Your task to perform on an android device: turn off wifi Image 0: 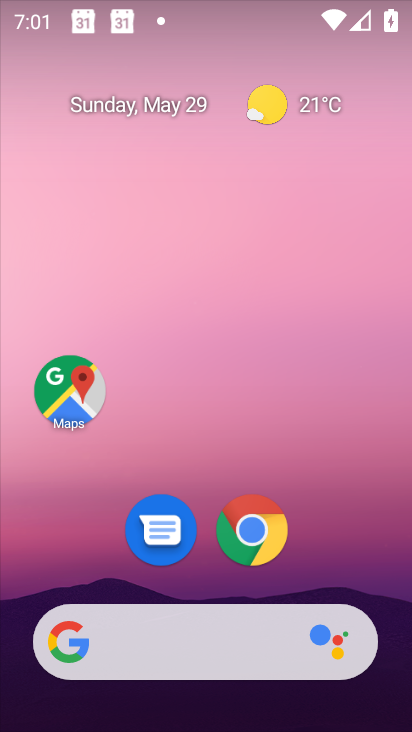
Step 0: drag from (302, 667) to (334, 94)
Your task to perform on an android device: turn off wifi Image 1: 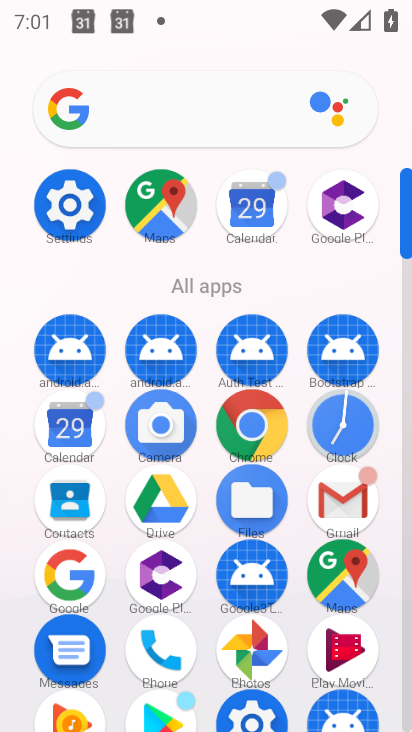
Step 1: click (82, 215)
Your task to perform on an android device: turn off wifi Image 2: 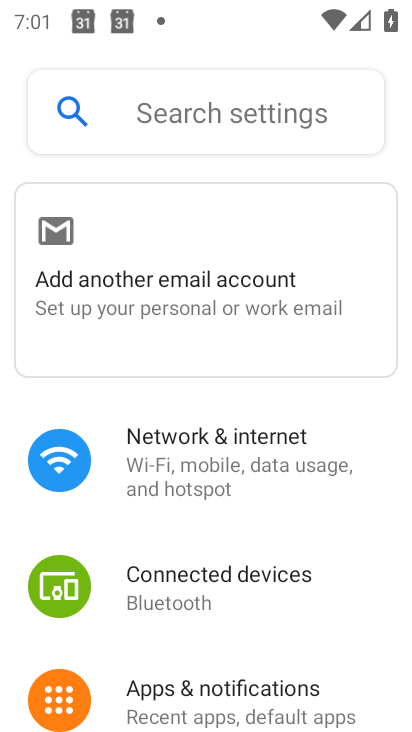
Step 2: click (213, 470)
Your task to perform on an android device: turn off wifi Image 3: 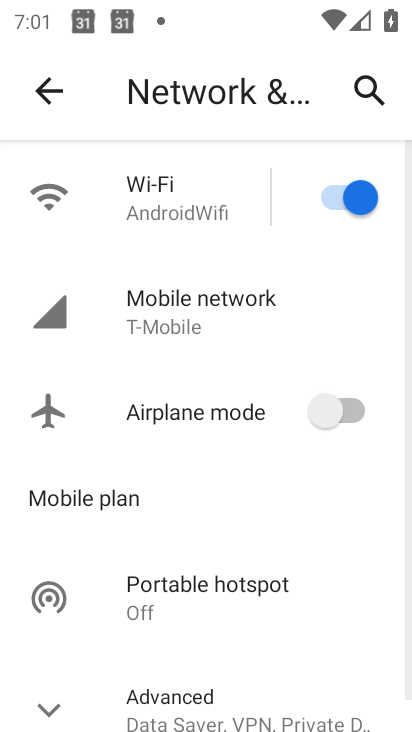
Step 3: click (343, 200)
Your task to perform on an android device: turn off wifi Image 4: 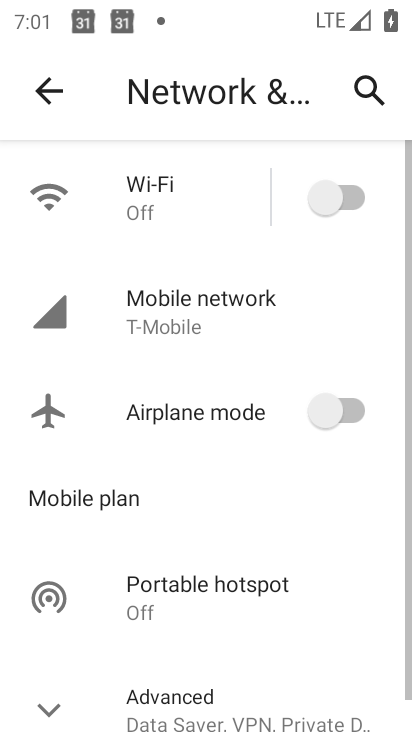
Step 4: task complete